Your task to perform on an android device: turn on notifications settings in the gmail app Image 0: 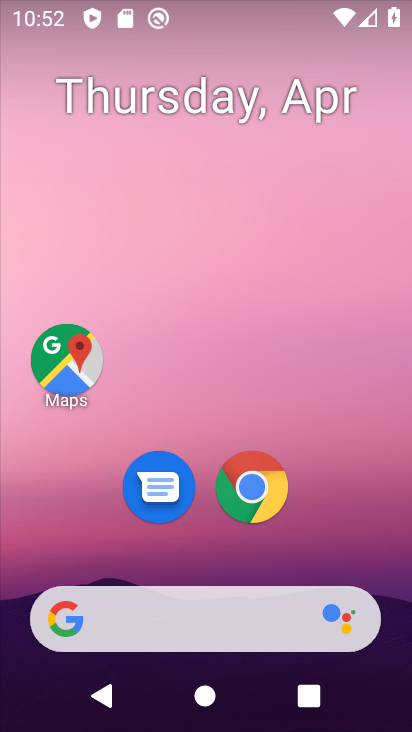
Step 0: drag from (362, 506) to (56, 14)
Your task to perform on an android device: turn on notifications settings in the gmail app Image 1: 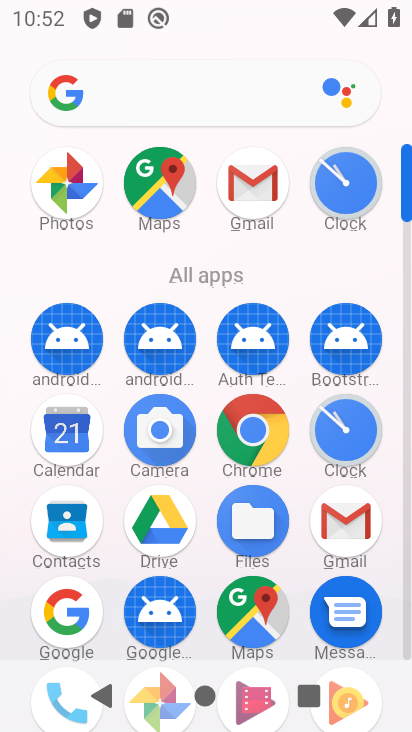
Step 1: click (252, 225)
Your task to perform on an android device: turn on notifications settings in the gmail app Image 2: 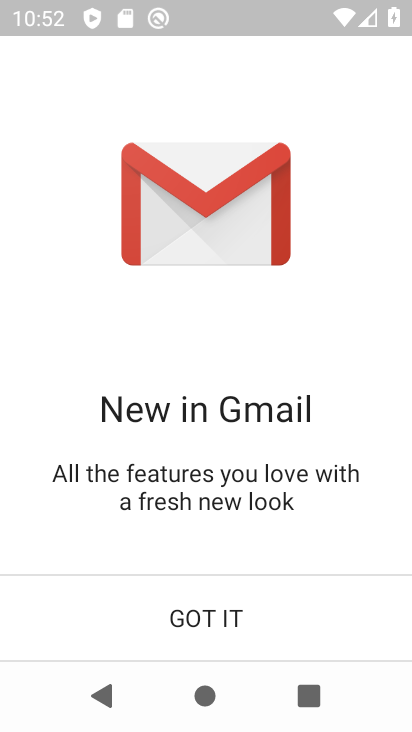
Step 2: click (234, 624)
Your task to perform on an android device: turn on notifications settings in the gmail app Image 3: 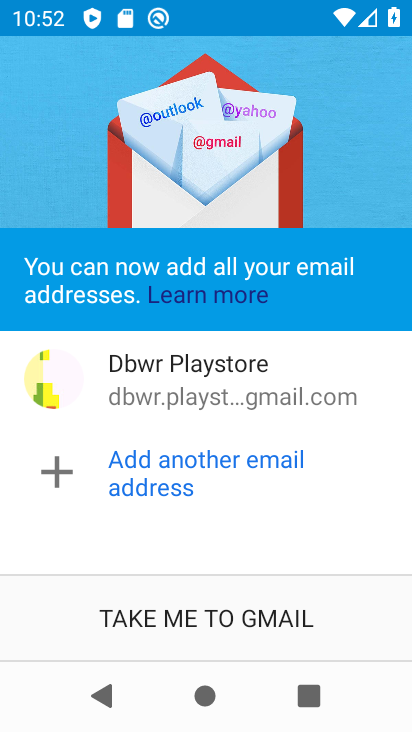
Step 3: click (234, 623)
Your task to perform on an android device: turn on notifications settings in the gmail app Image 4: 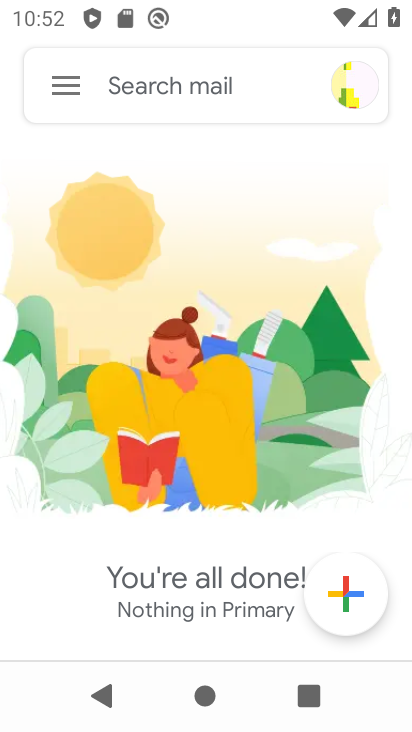
Step 4: click (54, 93)
Your task to perform on an android device: turn on notifications settings in the gmail app Image 5: 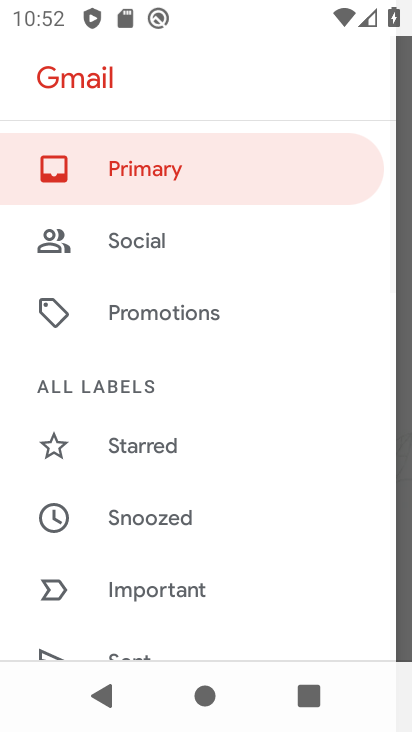
Step 5: drag from (180, 570) to (246, 218)
Your task to perform on an android device: turn on notifications settings in the gmail app Image 6: 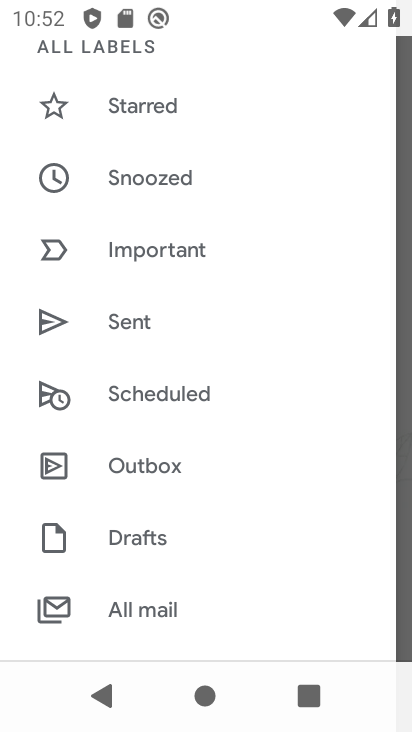
Step 6: drag from (281, 589) to (315, 236)
Your task to perform on an android device: turn on notifications settings in the gmail app Image 7: 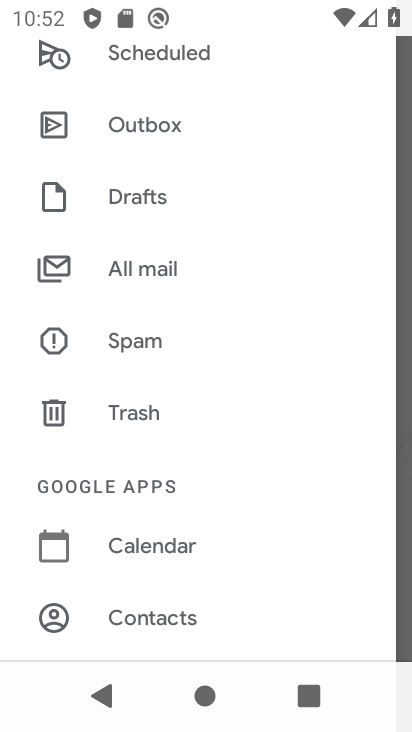
Step 7: drag from (191, 629) to (218, 208)
Your task to perform on an android device: turn on notifications settings in the gmail app Image 8: 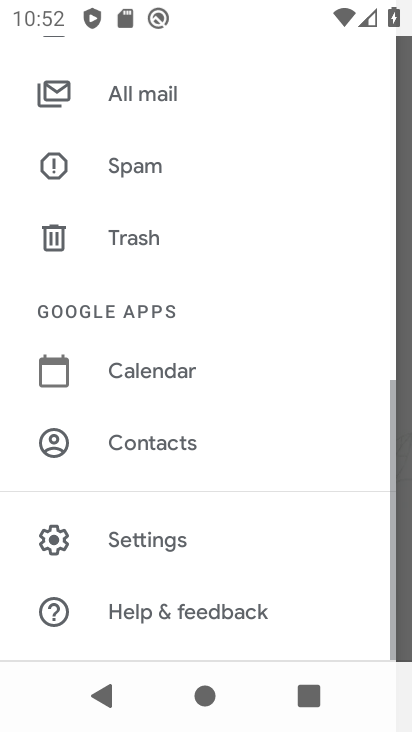
Step 8: click (172, 553)
Your task to perform on an android device: turn on notifications settings in the gmail app Image 9: 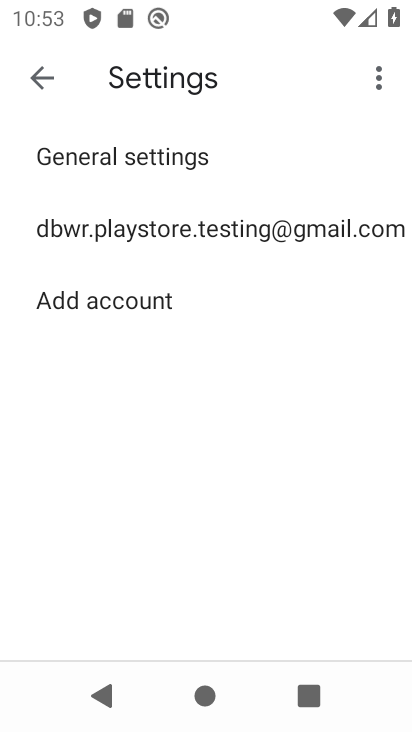
Step 9: click (220, 218)
Your task to perform on an android device: turn on notifications settings in the gmail app Image 10: 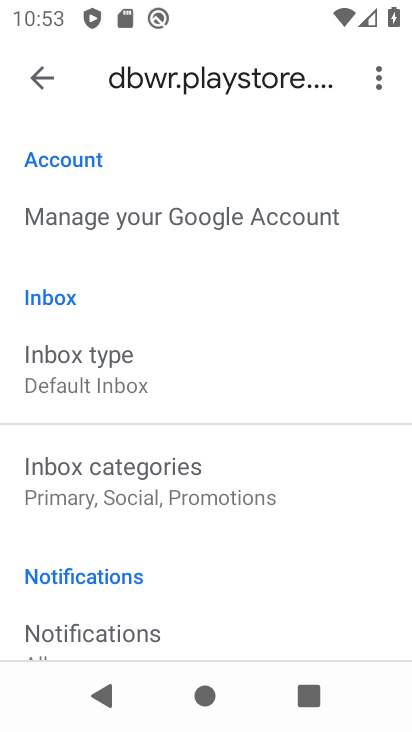
Step 10: drag from (215, 544) to (260, 264)
Your task to perform on an android device: turn on notifications settings in the gmail app Image 11: 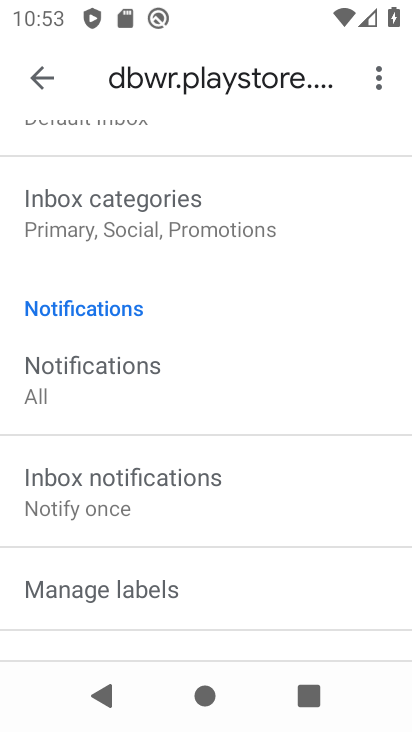
Step 11: click (86, 374)
Your task to perform on an android device: turn on notifications settings in the gmail app Image 12: 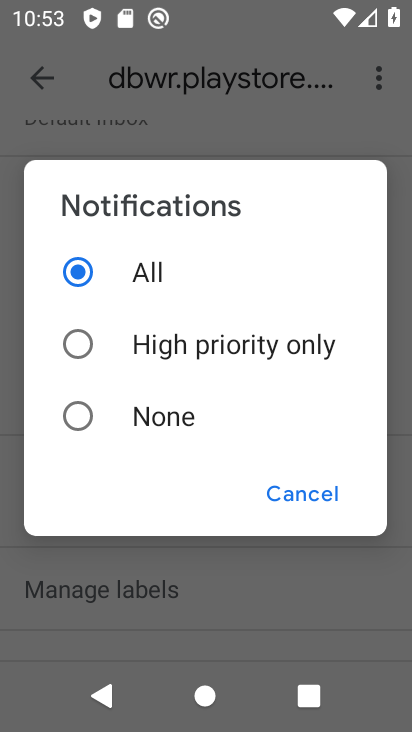
Step 12: task complete